Your task to perform on an android device: Open ESPN.com Image 0: 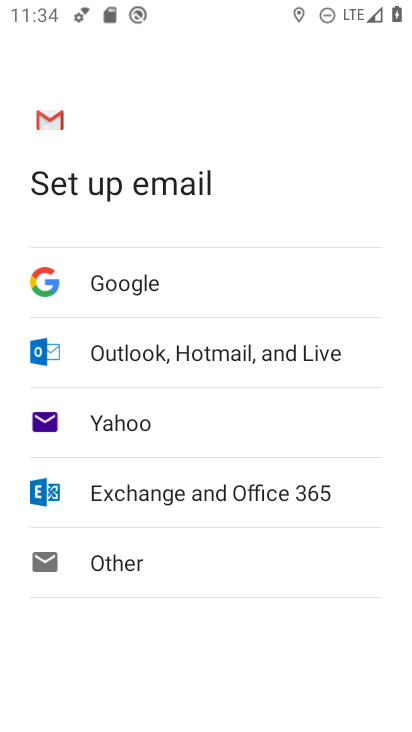
Step 0: press home button
Your task to perform on an android device: Open ESPN.com Image 1: 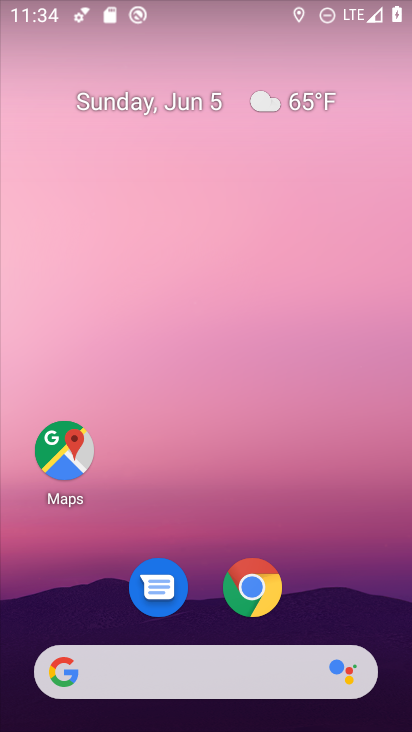
Step 1: click (252, 582)
Your task to perform on an android device: Open ESPN.com Image 2: 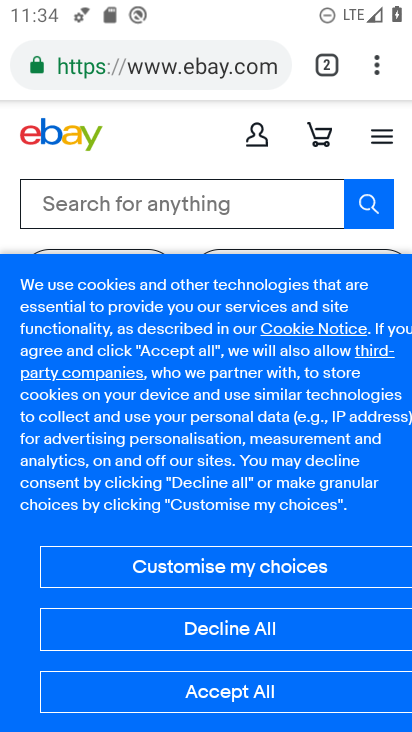
Step 2: click (329, 78)
Your task to perform on an android device: Open ESPN.com Image 3: 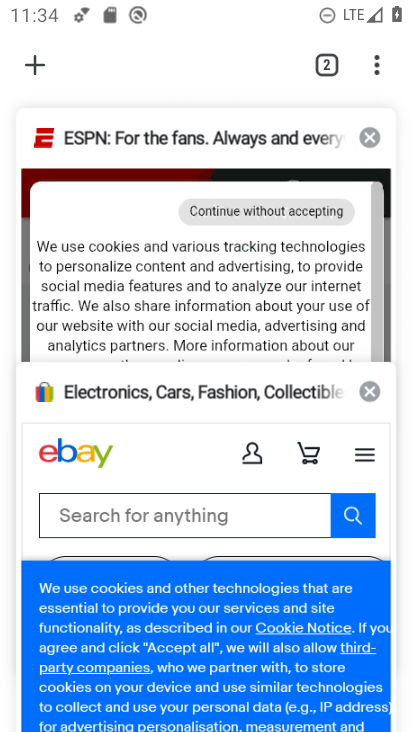
Step 3: click (183, 230)
Your task to perform on an android device: Open ESPN.com Image 4: 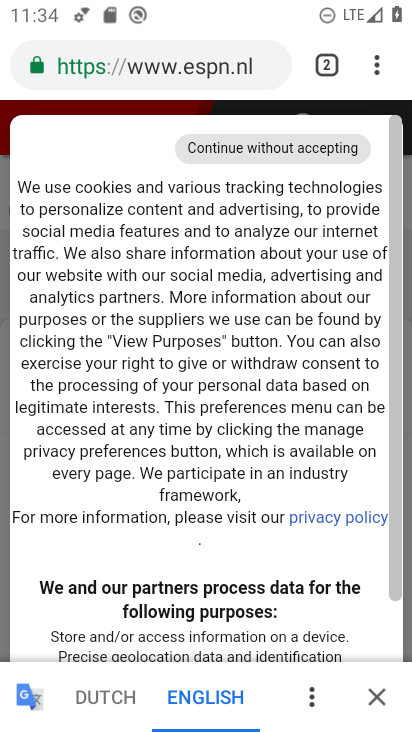
Step 4: task complete